Your task to perform on an android device: Open the calendar app, open the side menu, and click the "Day" option Image 0: 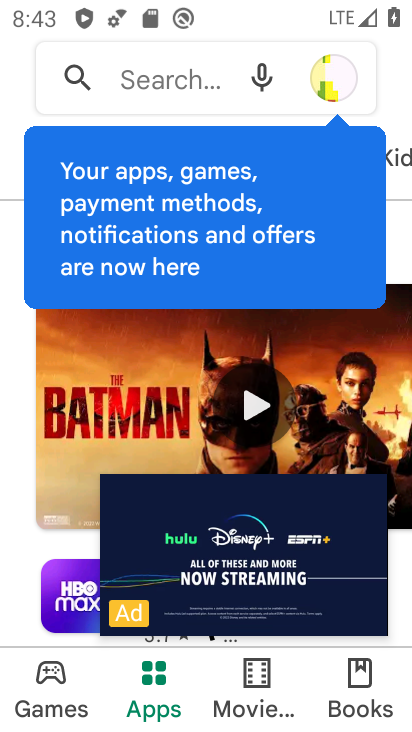
Step 0: press home button
Your task to perform on an android device: Open the calendar app, open the side menu, and click the "Day" option Image 1: 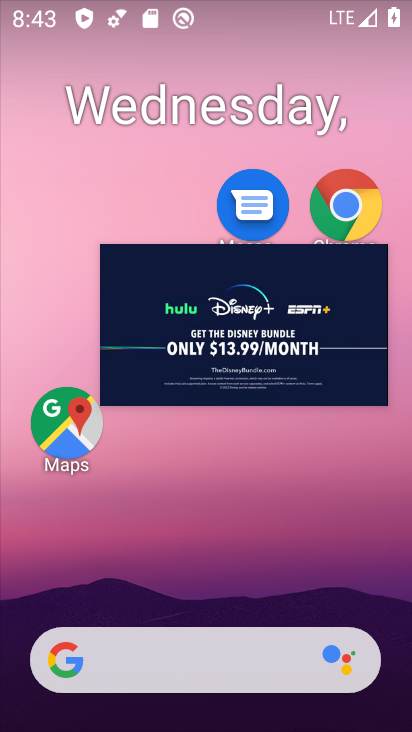
Step 1: click (256, 304)
Your task to perform on an android device: Open the calendar app, open the side menu, and click the "Day" option Image 2: 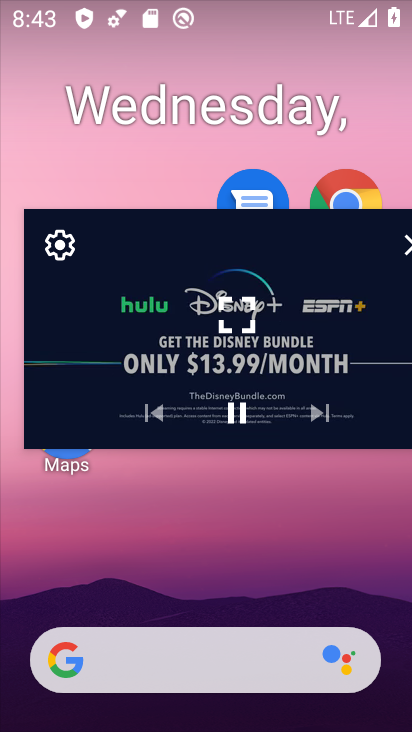
Step 2: click (404, 247)
Your task to perform on an android device: Open the calendar app, open the side menu, and click the "Day" option Image 3: 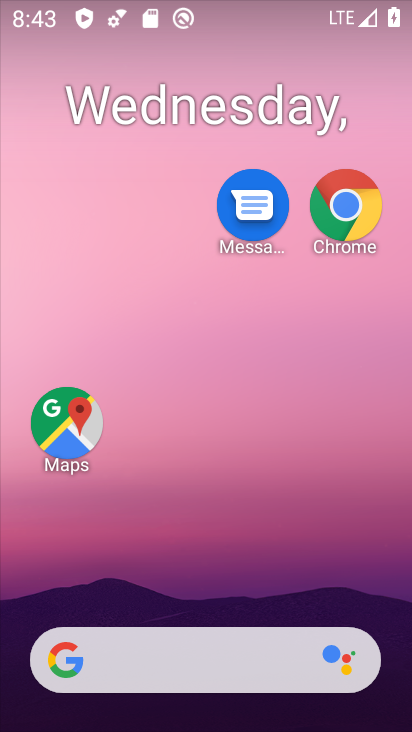
Step 3: drag from (212, 537) to (200, 9)
Your task to perform on an android device: Open the calendar app, open the side menu, and click the "Day" option Image 4: 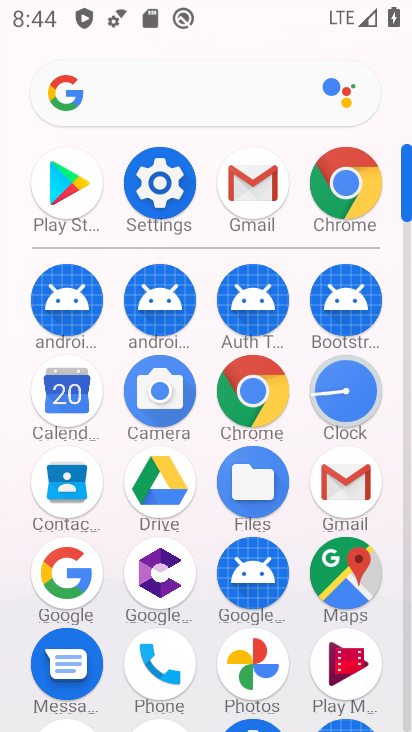
Step 4: click (69, 398)
Your task to perform on an android device: Open the calendar app, open the side menu, and click the "Day" option Image 5: 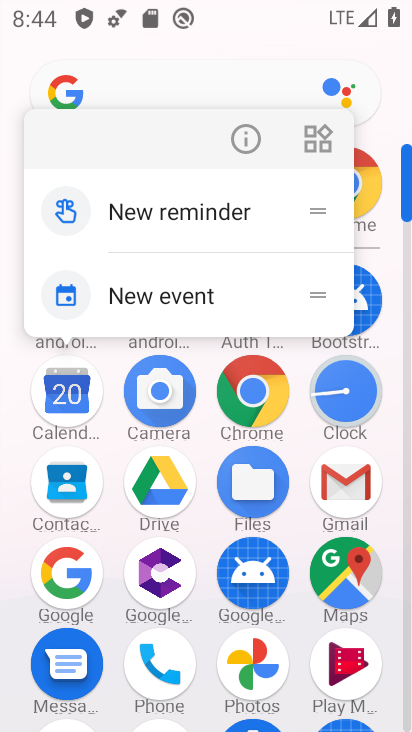
Step 5: click (244, 140)
Your task to perform on an android device: Open the calendar app, open the side menu, and click the "Day" option Image 6: 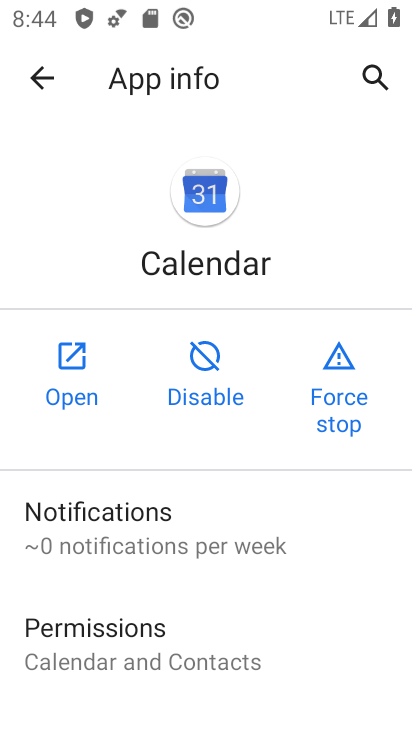
Step 6: click (74, 361)
Your task to perform on an android device: Open the calendar app, open the side menu, and click the "Day" option Image 7: 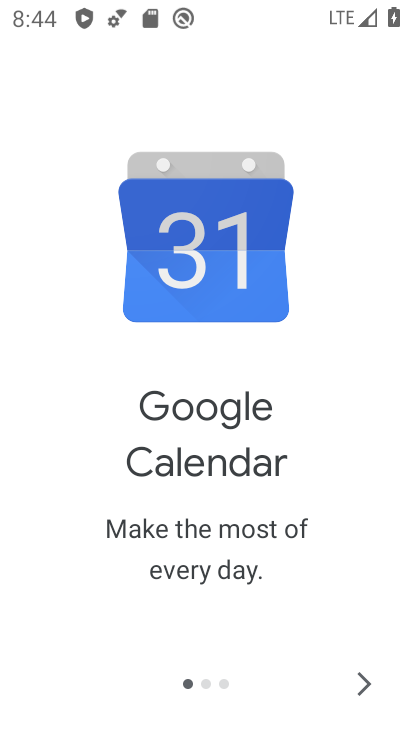
Step 7: click (354, 666)
Your task to perform on an android device: Open the calendar app, open the side menu, and click the "Day" option Image 8: 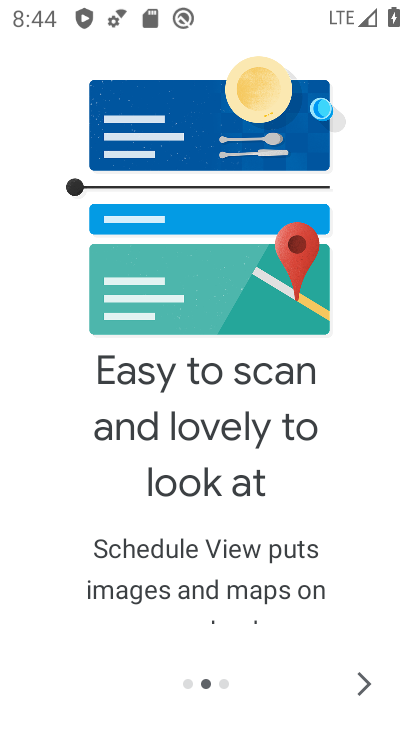
Step 8: click (363, 674)
Your task to perform on an android device: Open the calendar app, open the side menu, and click the "Day" option Image 9: 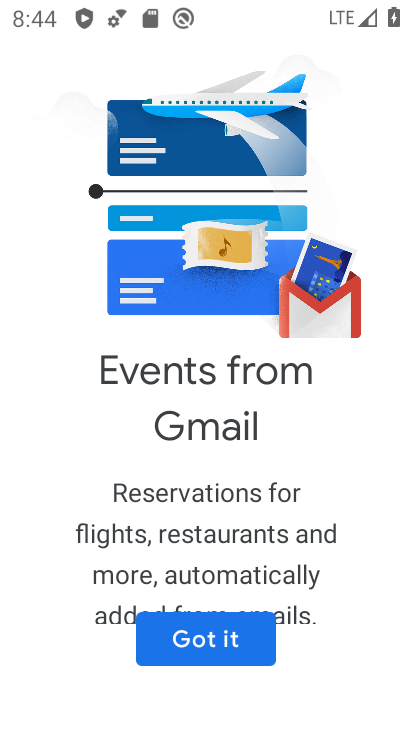
Step 9: click (176, 640)
Your task to perform on an android device: Open the calendar app, open the side menu, and click the "Day" option Image 10: 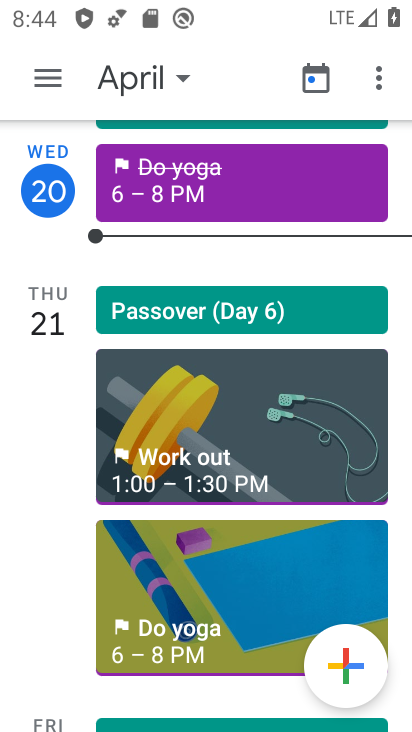
Step 10: click (55, 81)
Your task to perform on an android device: Open the calendar app, open the side menu, and click the "Day" option Image 11: 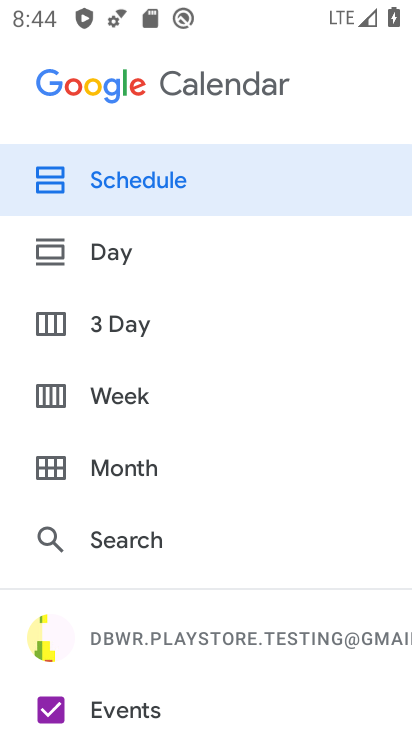
Step 11: click (121, 263)
Your task to perform on an android device: Open the calendar app, open the side menu, and click the "Day" option Image 12: 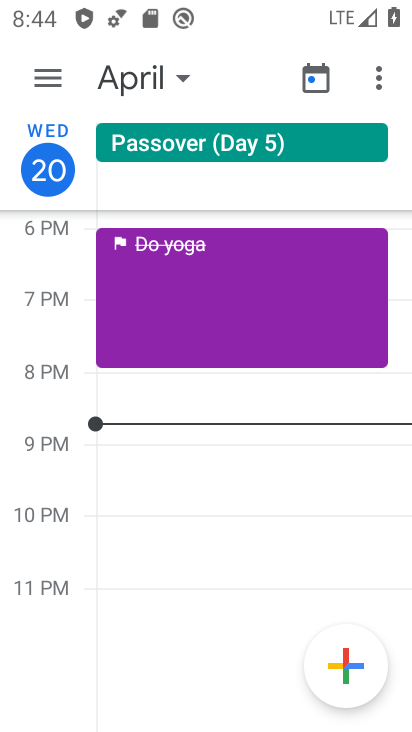
Step 12: task complete